Your task to perform on an android device: toggle notification dots Image 0: 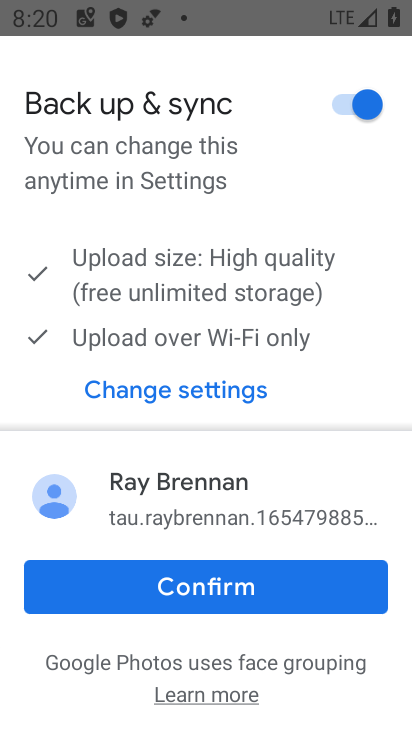
Step 0: press home button
Your task to perform on an android device: toggle notification dots Image 1: 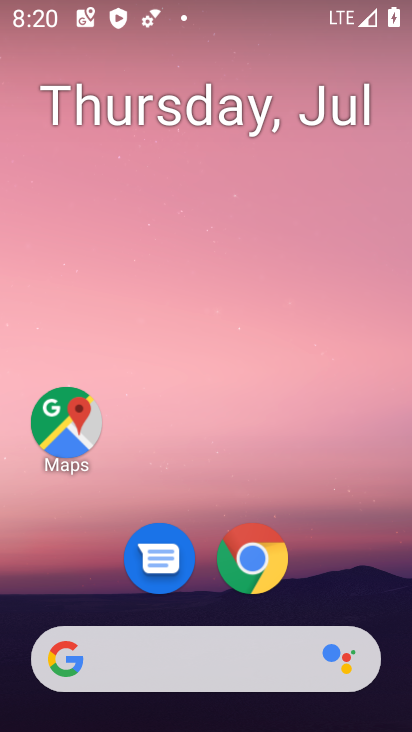
Step 1: drag from (180, 659) to (265, 151)
Your task to perform on an android device: toggle notification dots Image 2: 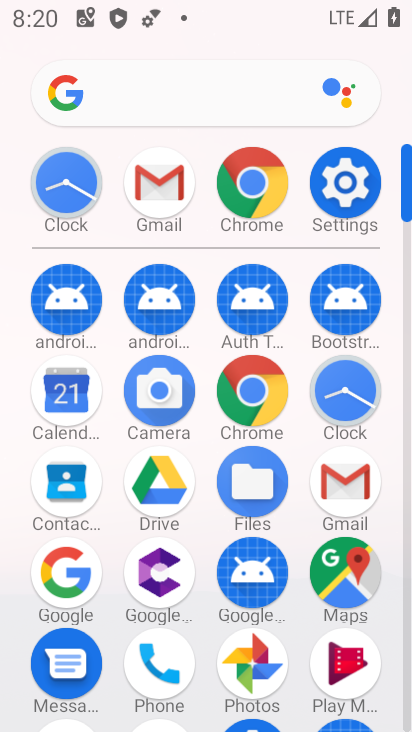
Step 2: click (344, 211)
Your task to perform on an android device: toggle notification dots Image 3: 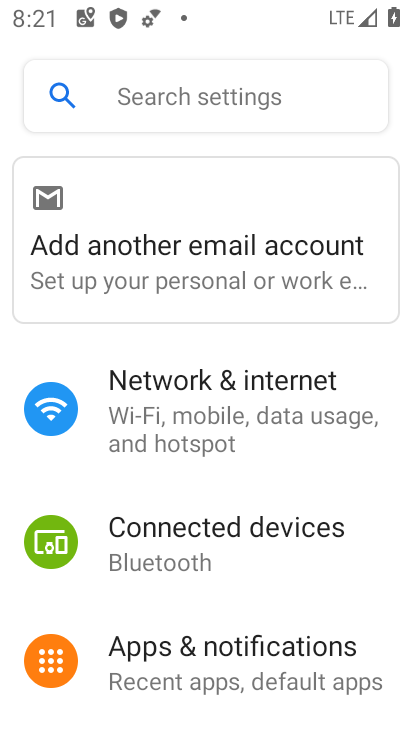
Step 3: click (223, 669)
Your task to perform on an android device: toggle notification dots Image 4: 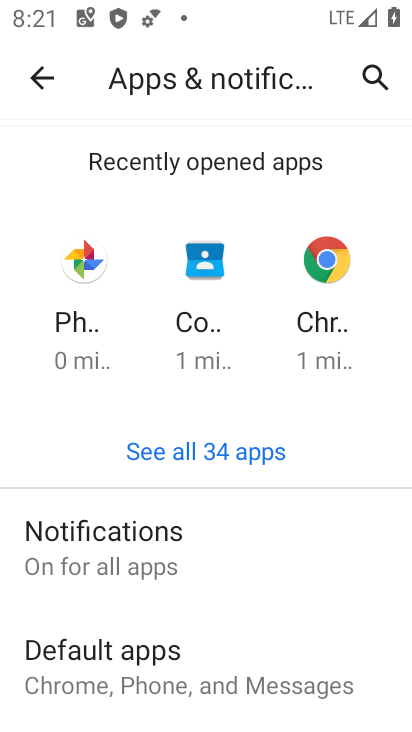
Step 4: click (181, 552)
Your task to perform on an android device: toggle notification dots Image 5: 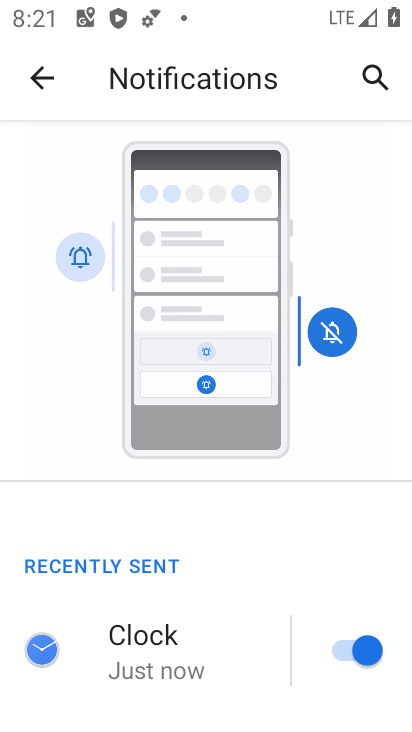
Step 5: drag from (195, 612) to (249, 316)
Your task to perform on an android device: toggle notification dots Image 6: 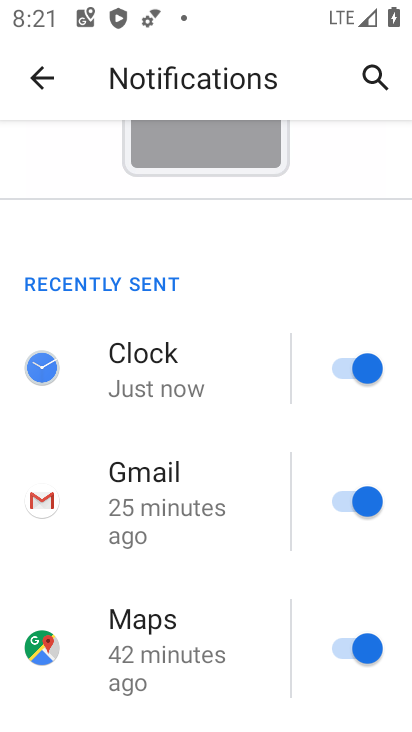
Step 6: drag from (223, 591) to (256, 272)
Your task to perform on an android device: toggle notification dots Image 7: 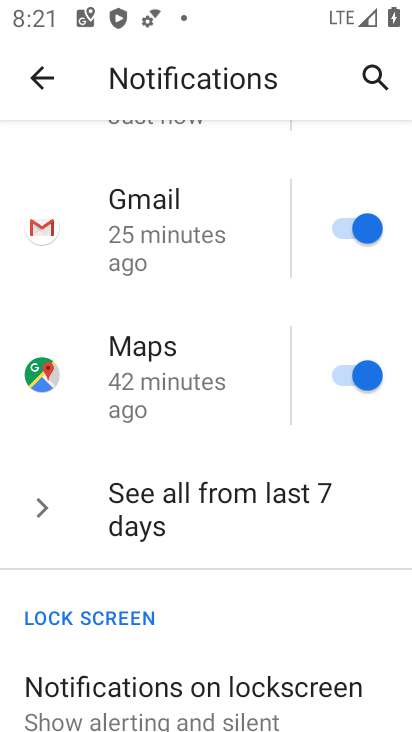
Step 7: drag from (207, 625) to (249, 260)
Your task to perform on an android device: toggle notification dots Image 8: 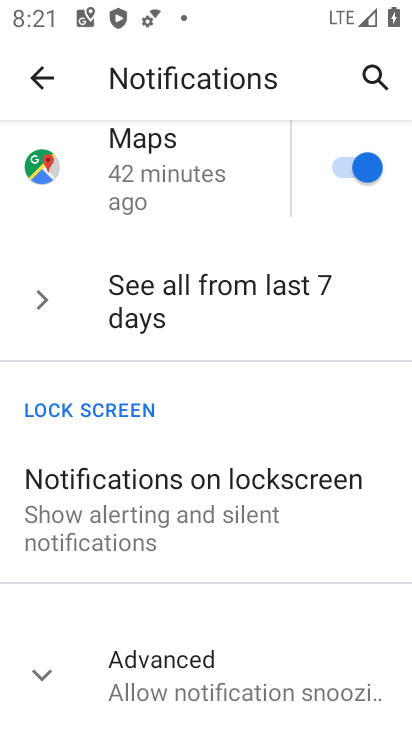
Step 8: click (195, 694)
Your task to perform on an android device: toggle notification dots Image 9: 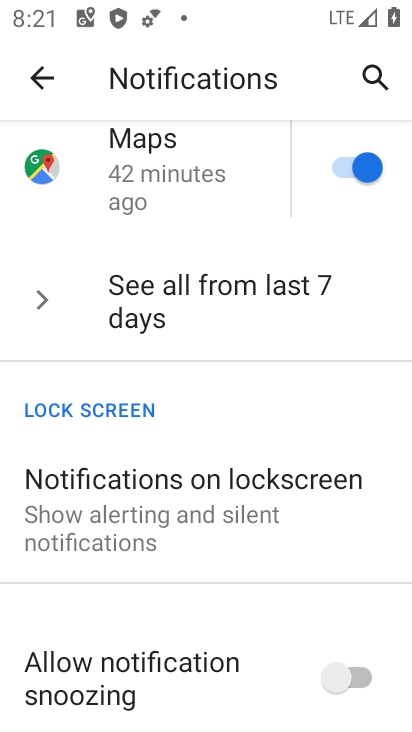
Step 9: drag from (204, 617) to (260, 288)
Your task to perform on an android device: toggle notification dots Image 10: 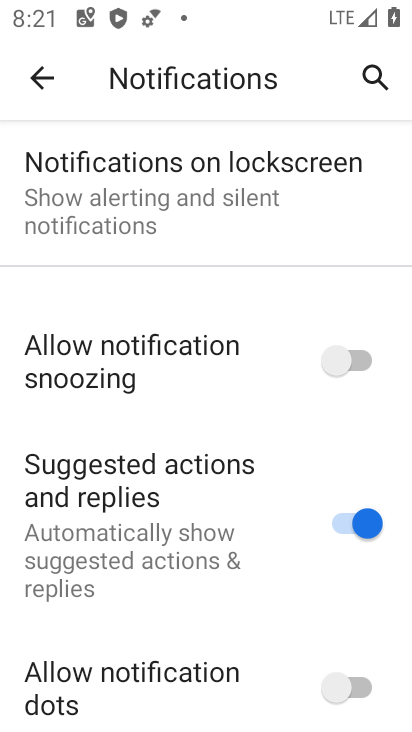
Step 10: drag from (205, 630) to (236, 396)
Your task to perform on an android device: toggle notification dots Image 11: 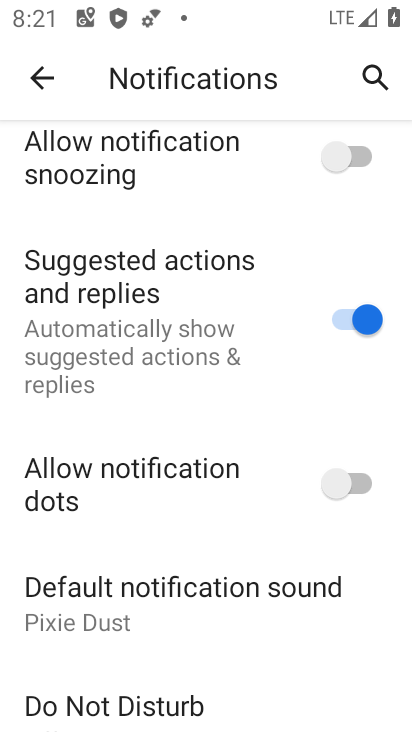
Step 11: click (247, 504)
Your task to perform on an android device: toggle notification dots Image 12: 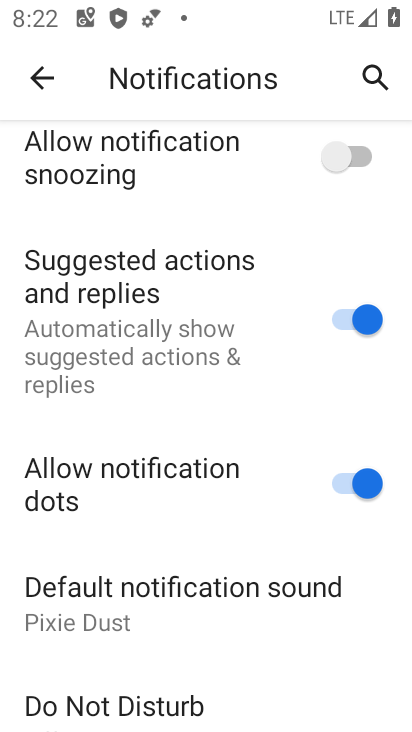
Step 12: task complete